Your task to perform on an android device: turn on the 24-hour format for clock Image 0: 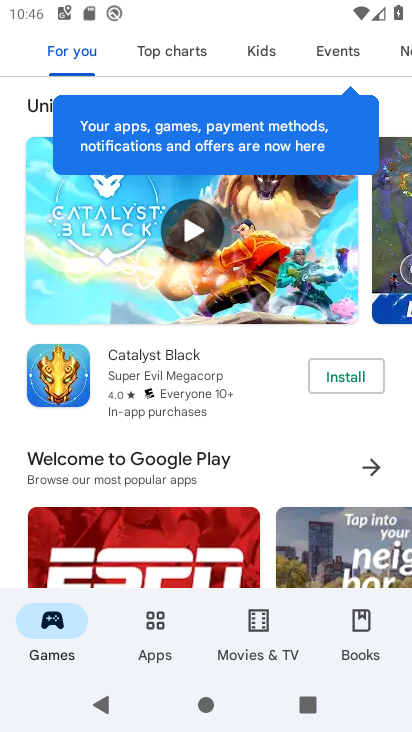
Step 0: press home button
Your task to perform on an android device: turn on the 24-hour format for clock Image 1: 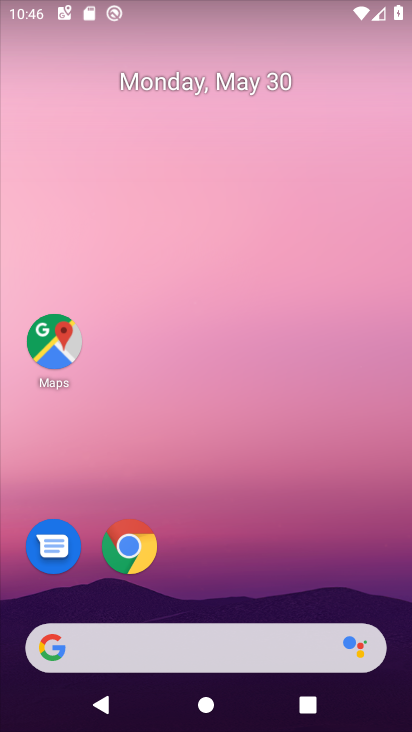
Step 1: drag from (257, 601) to (276, 516)
Your task to perform on an android device: turn on the 24-hour format for clock Image 2: 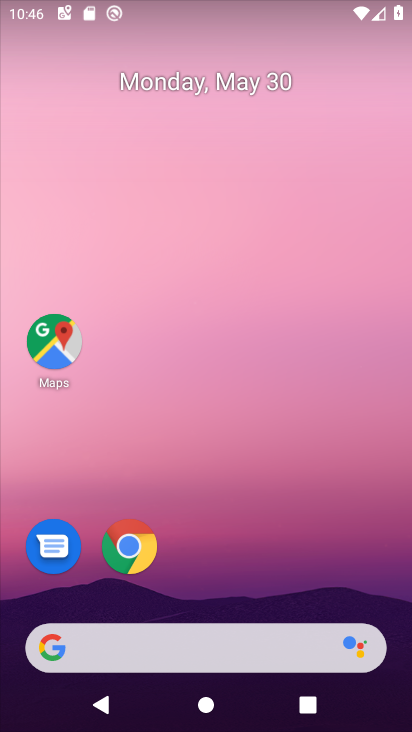
Step 2: drag from (208, 590) to (237, 239)
Your task to perform on an android device: turn on the 24-hour format for clock Image 3: 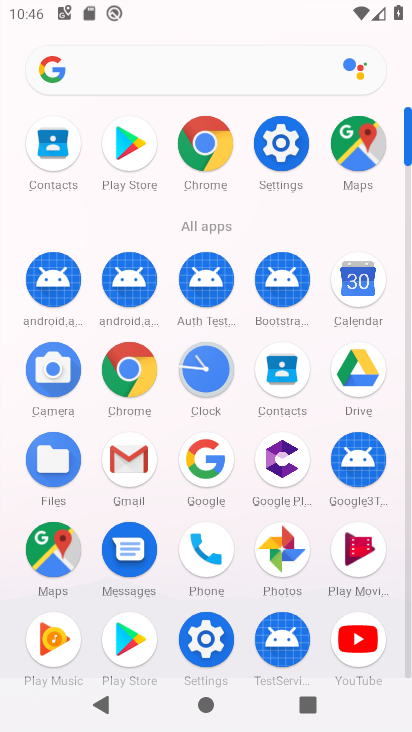
Step 3: click (211, 383)
Your task to perform on an android device: turn on the 24-hour format for clock Image 4: 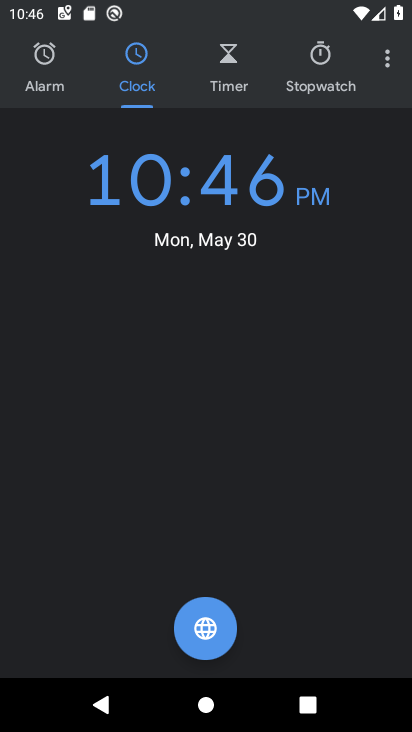
Step 4: press home button
Your task to perform on an android device: turn on the 24-hour format for clock Image 5: 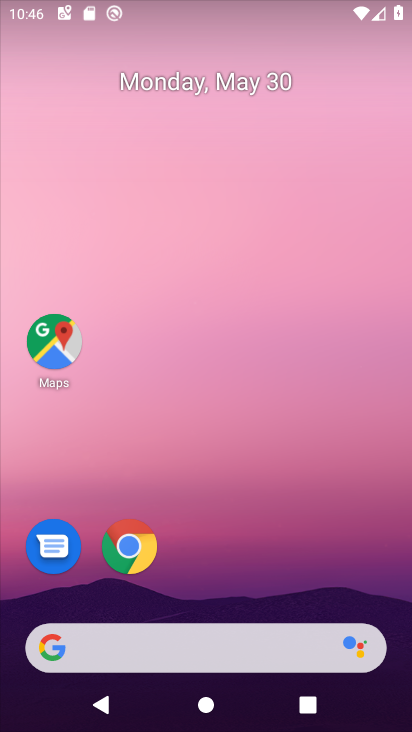
Step 5: drag from (205, 574) to (284, 24)
Your task to perform on an android device: turn on the 24-hour format for clock Image 6: 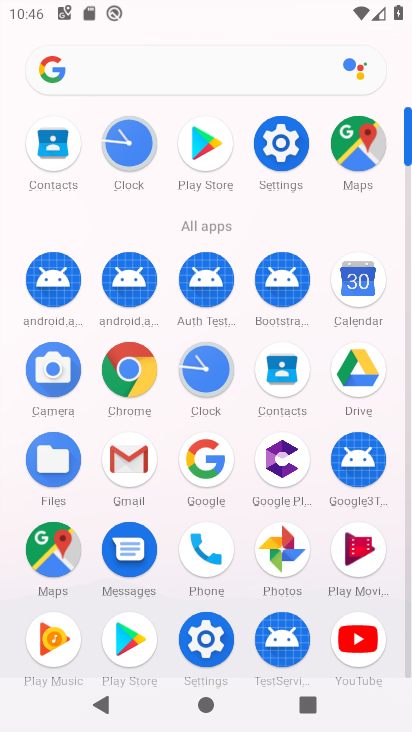
Step 6: drag from (169, 586) to (173, 494)
Your task to perform on an android device: turn on the 24-hour format for clock Image 7: 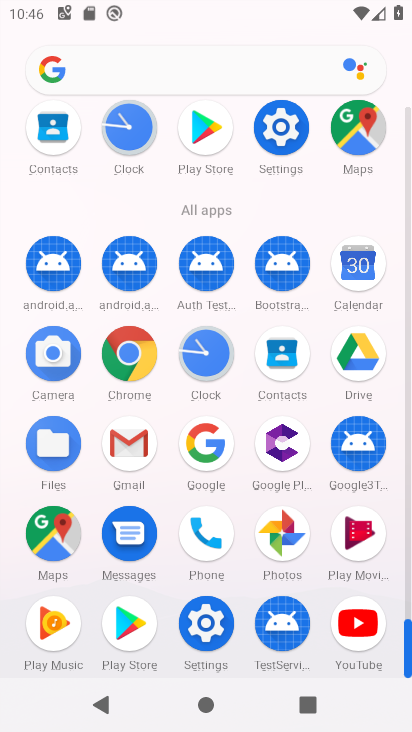
Step 7: click (199, 628)
Your task to perform on an android device: turn on the 24-hour format for clock Image 8: 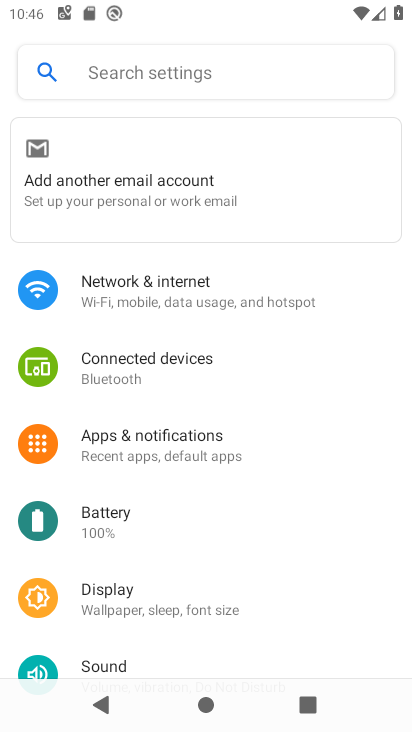
Step 8: drag from (195, 581) to (363, 0)
Your task to perform on an android device: turn on the 24-hour format for clock Image 9: 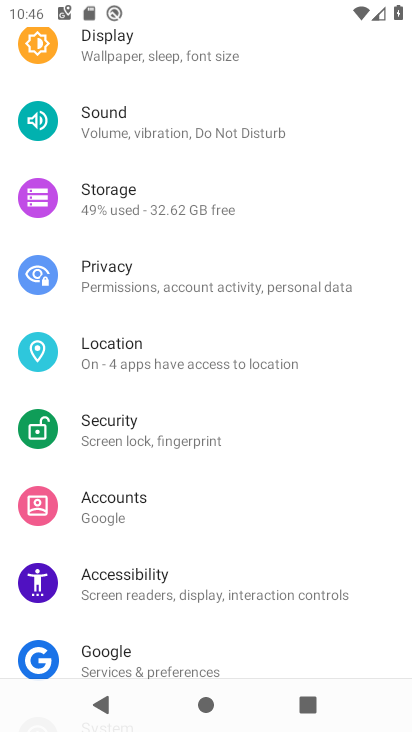
Step 9: drag from (222, 526) to (291, 165)
Your task to perform on an android device: turn on the 24-hour format for clock Image 10: 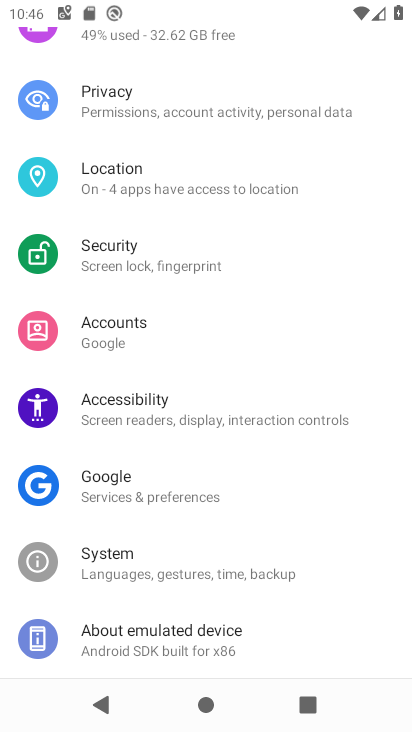
Step 10: click (148, 576)
Your task to perform on an android device: turn on the 24-hour format for clock Image 11: 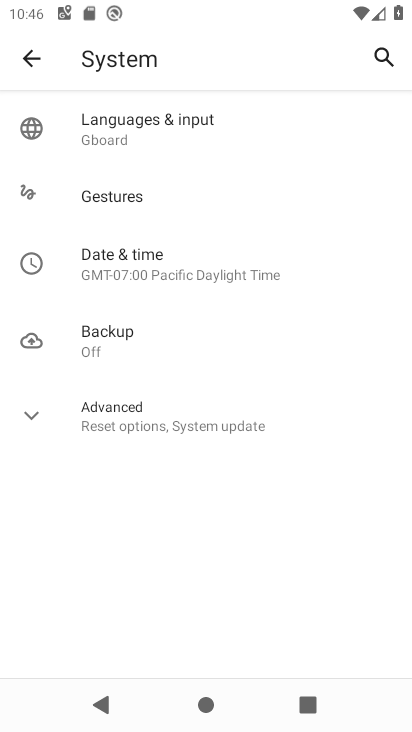
Step 11: click (171, 260)
Your task to perform on an android device: turn on the 24-hour format for clock Image 12: 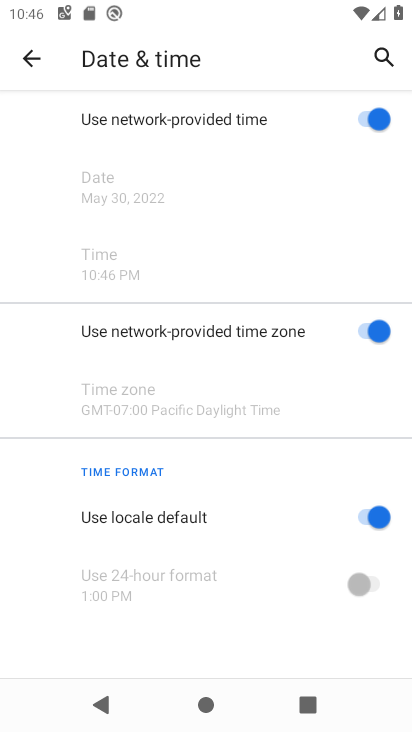
Step 12: click (352, 498)
Your task to perform on an android device: turn on the 24-hour format for clock Image 13: 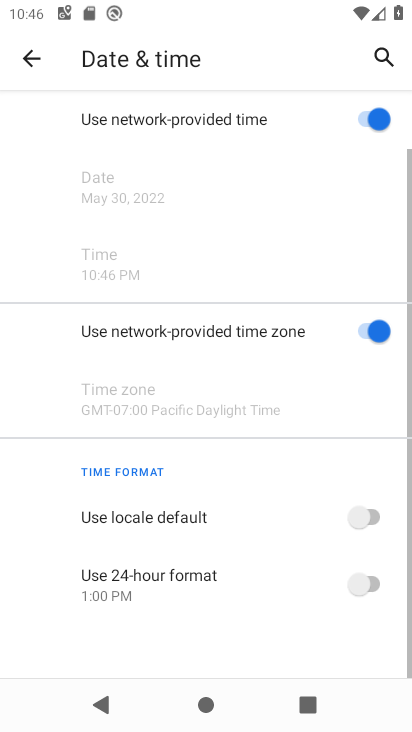
Step 13: click (388, 578)
Your task to perform on an android device: turn on the 24-hour format for clock Image 14: 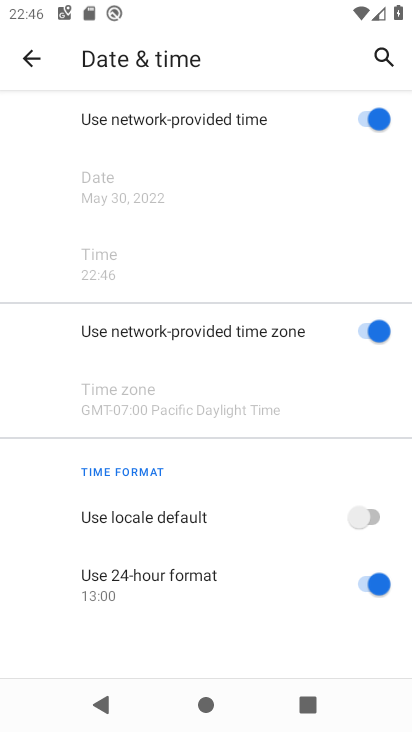
Step 14: task complete